Your task to perform on an android device: Open eBay Image 0: 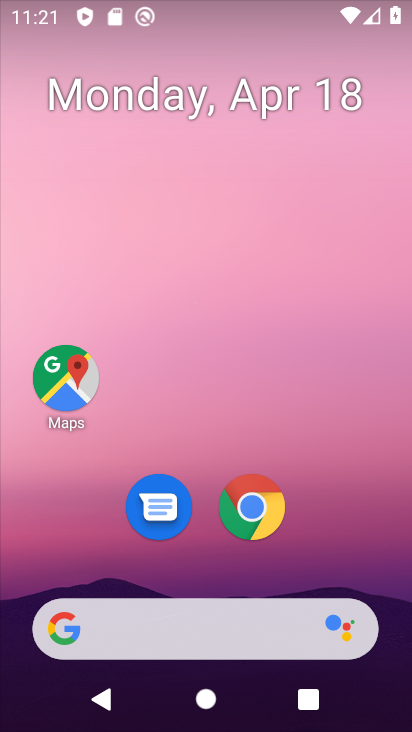
Step 0: click (253, 525)
Your task to perform on an android device: Open eBay Image 1: 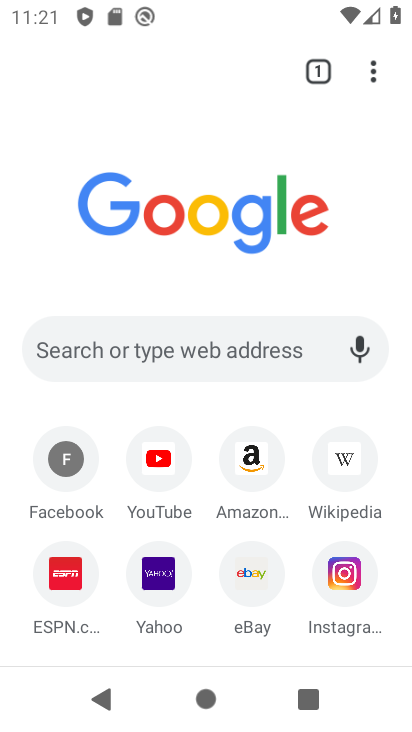
Step 1: click (203, 355)
Your task to perform on an android device: Open eBay Image 2: 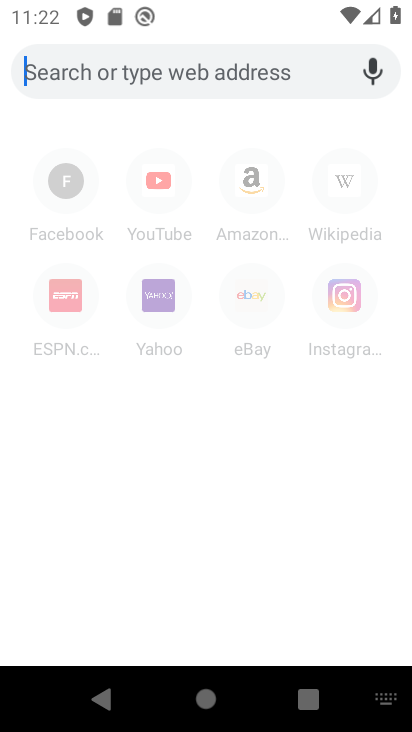
Step 2: click (132, 77)
Your task to perform on an android device: Open eBay Image 3: 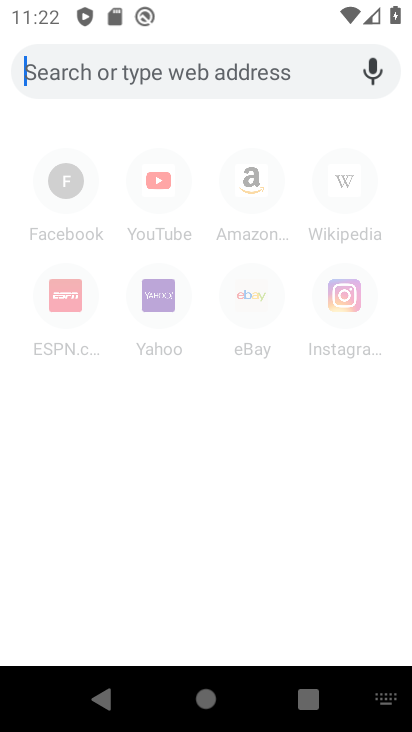
Step 3: type "ebay"
Your task to perform on an android device: Open eBay Image 4: 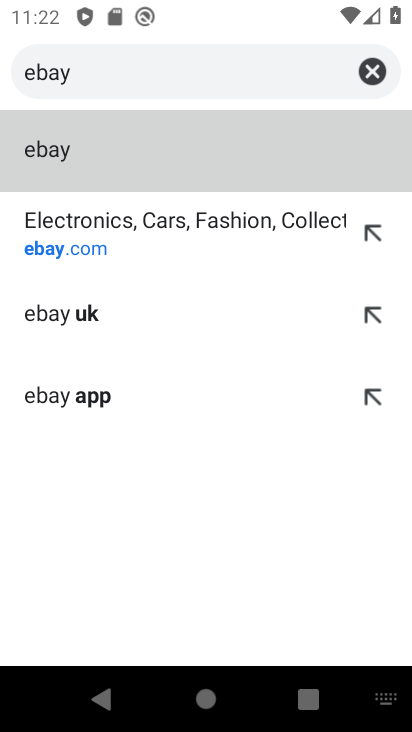
Step 4: click (116, 238)
Your task to perform on an android device: Open eBay Image 5: 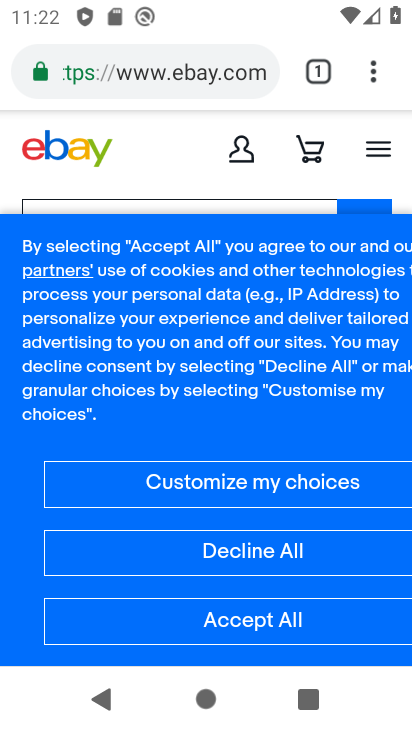
Step 5: task complete